Your task to perform on an android device: Open notification settings Image 0: 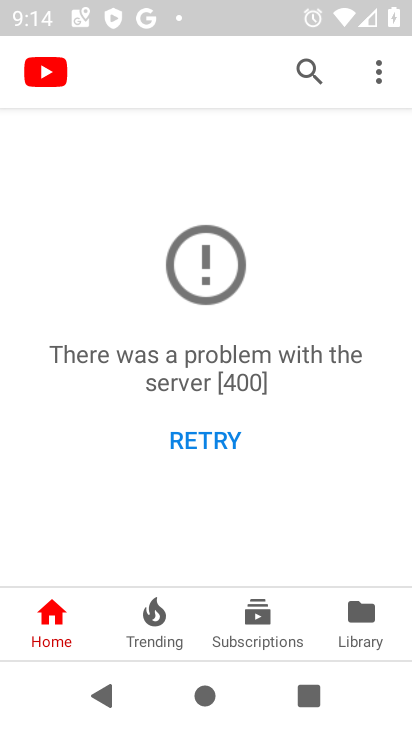
Step 0: press home button
Your task to perform on an android device: Open notification settings Image 1: 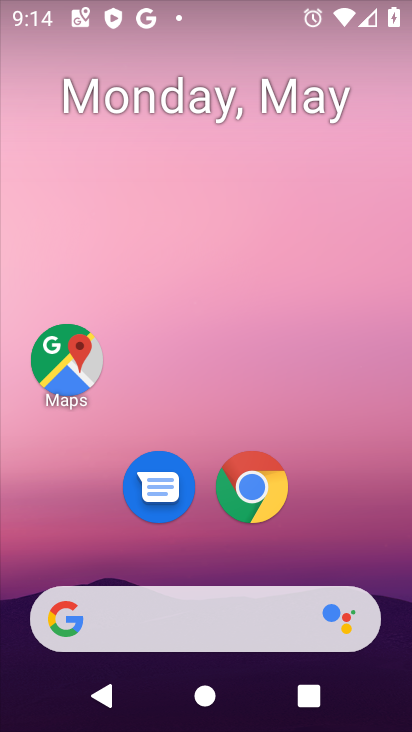
Step 1: drag from (204, 569) to (193, 0)
Your task to perform on an android device: Open notification settings Image 2: 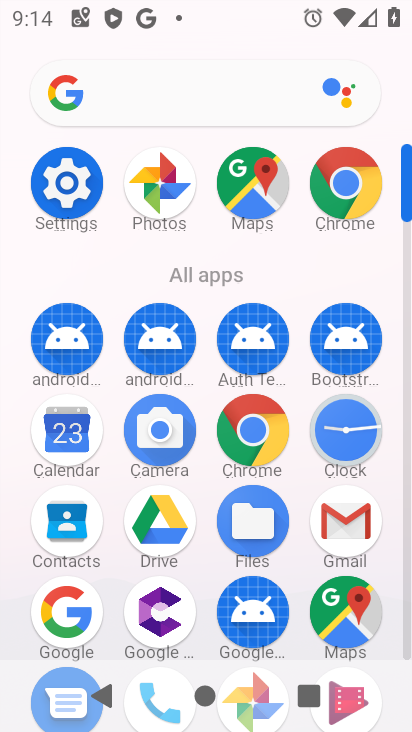
Step 2: click (58, 202)
Your task to perform on an android device: Open notification settings Image 3: 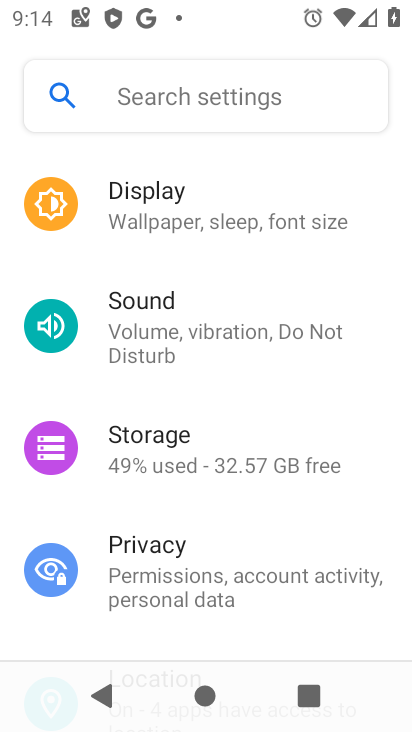
Step 3: drag from (82, 588) to (135, 252)
Your task to perform on an android device: Open notification settings Image 4: 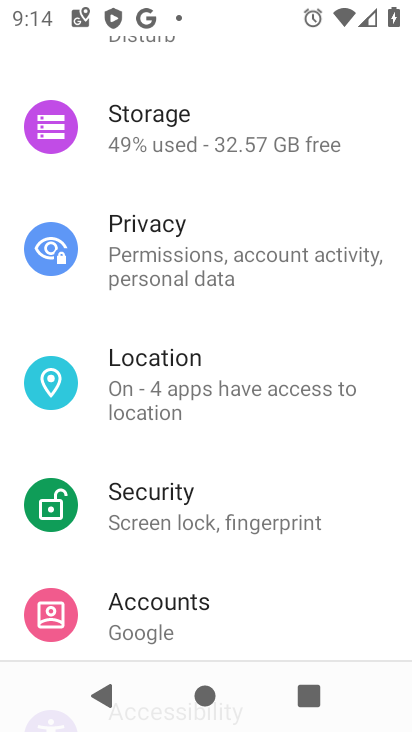
Step 4: drag from (133, 280) to (141, 620)
Your task to perform on an android device: Open notification settings Image 5: 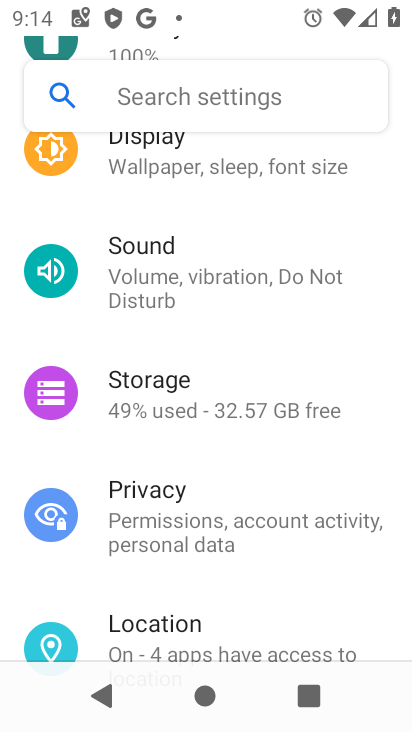
Step 5: drag from (189, 195) to (182, 580)
Your task to perform on an android device: Open notification settings Image 6: 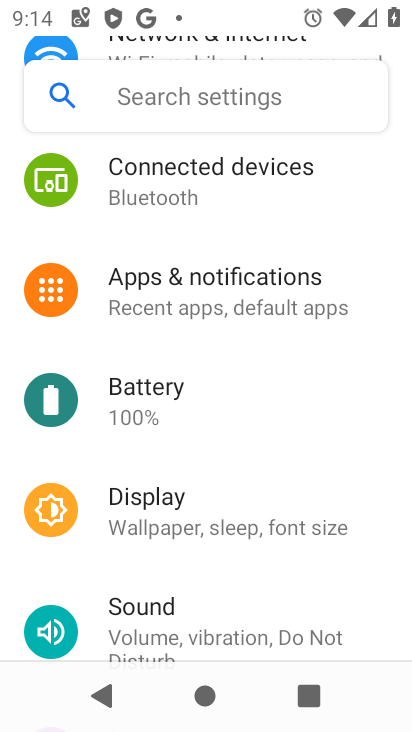
Step 6: click (145, 302)
Your task to perform on an android device: Open notification settings Image 7: 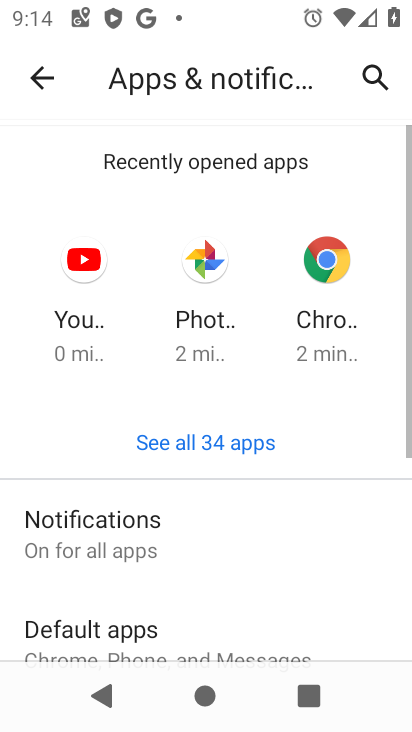
Step 7: task complete